Your task to perform on an android device: Show me popular videos on Youtube Image 0: 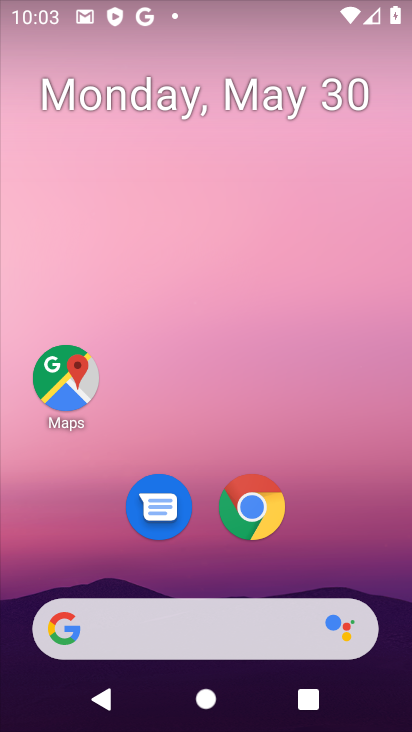
Step 0: drag from (370, 553) to (339, 182)
Your task to perform on an android device: Show me popular videos on Youtube Image 1: 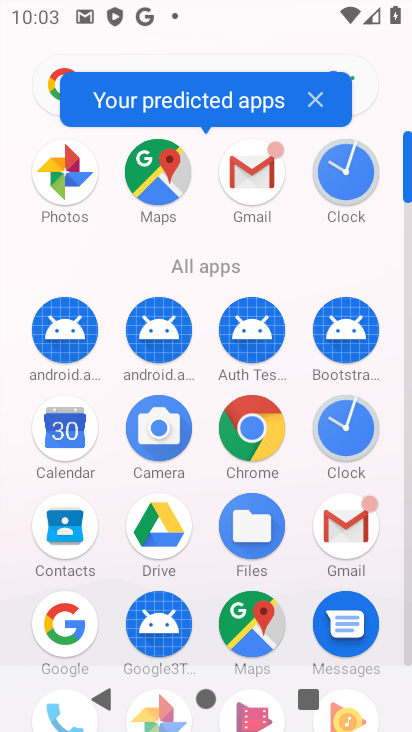
Step 1: drag from (293, 575) to (299, 309)
Your task to perform on an android device: Show me popular videos on Youtube Image 2: 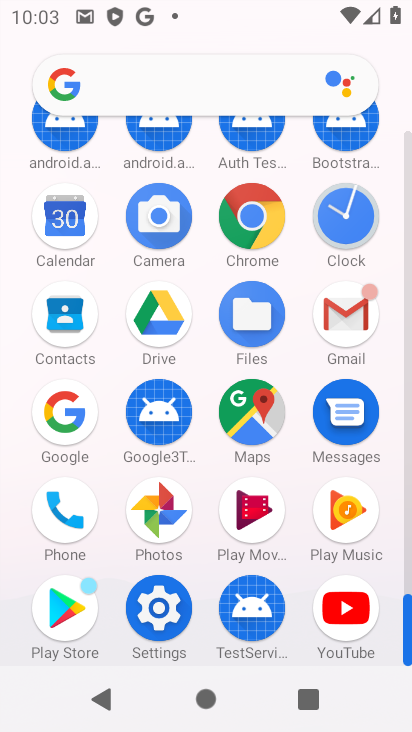
Step 2: click (364, 605)
Your task to perform on an android device: Show me popular videos on Youtube Image 3: 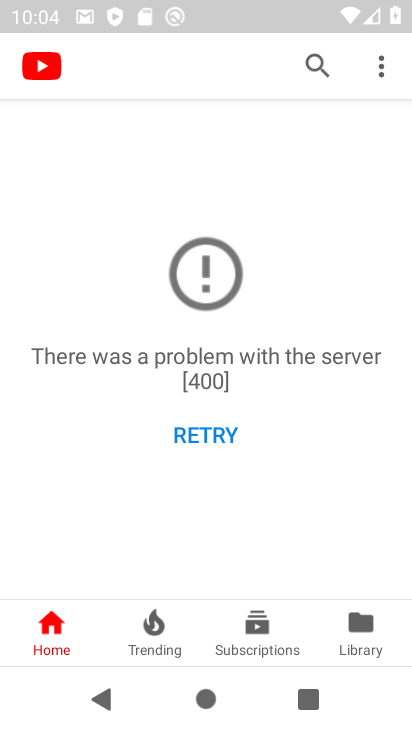
Step 3: task complete